Your task to perform on an android device: Open display settings Image 0: 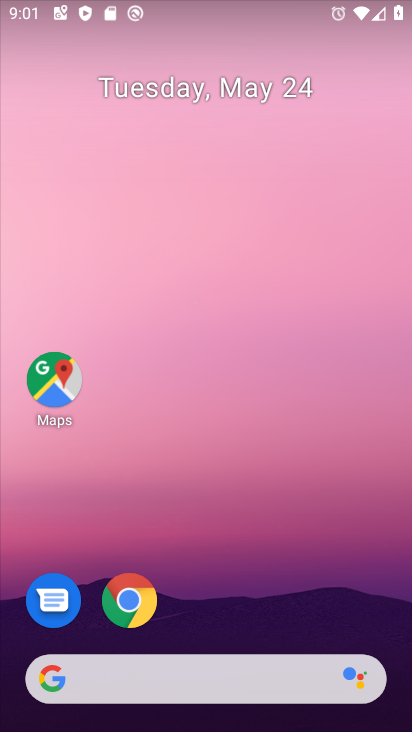
Step 0: drag from (205, 719) to (182, 85)
Your task to perform on an android device: Open display settings Image 1: 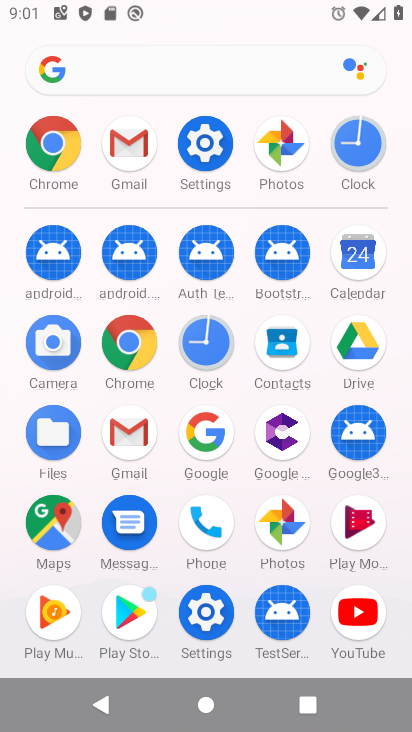
Step 1: click (213, 142)
Your task to perform on an android device: Open display settings Image 2: 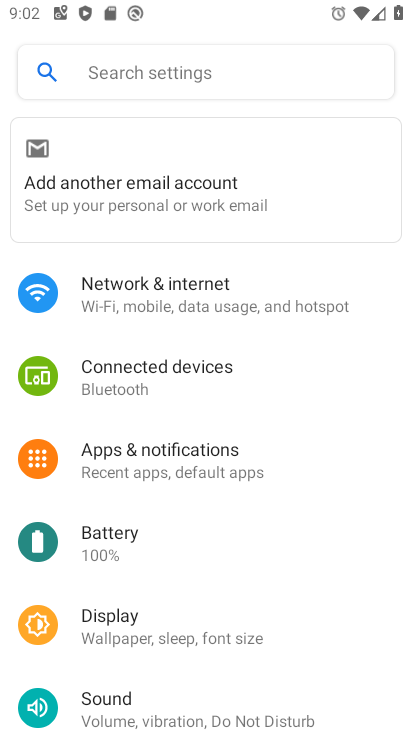
Step 2: drag from (129, 663) to (150, 409)
Your task to perform on an android device: Open display settings Image 3: 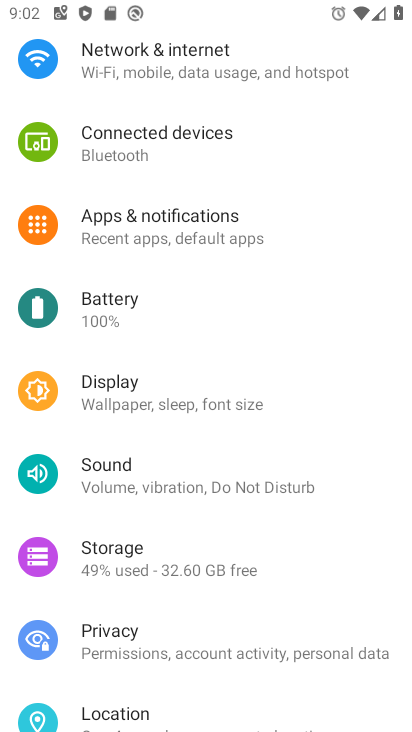
Step 3: click (118, 397)
Your task to perform on an android device: Open display settings Image 4: 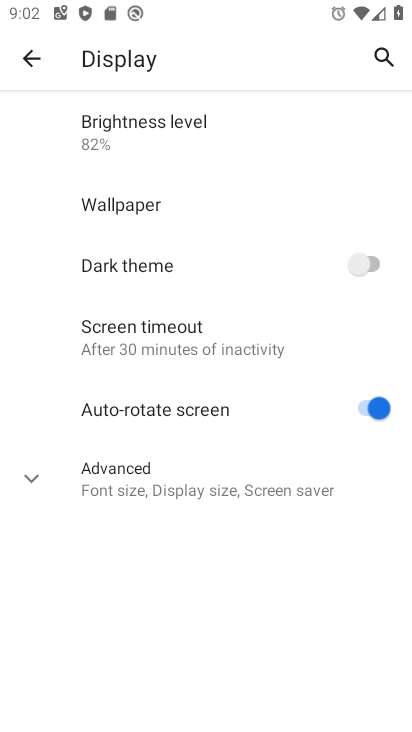
Step 4: task complete